Your task to perform on an android device: change alarm snooze length Image 0: 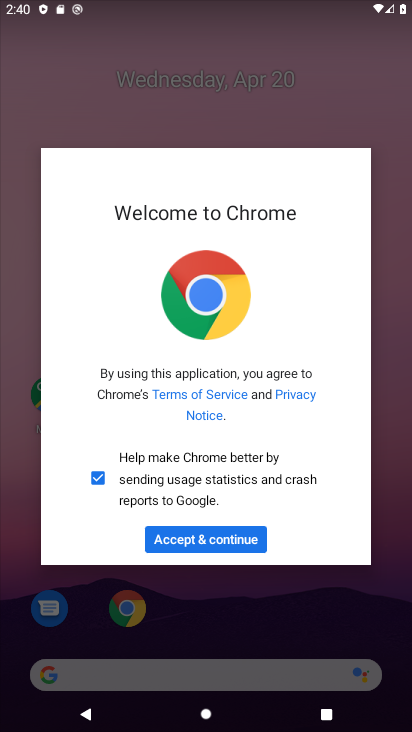
Step 0: press home button
Your task to perform on an android device: change alarm snooze length Image 1: 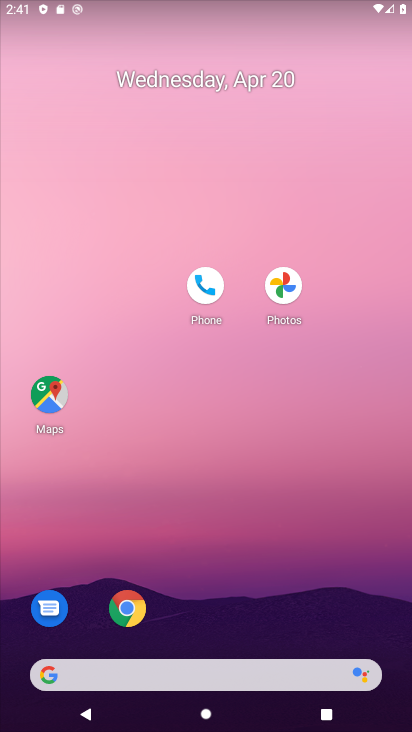
Step 1: drag from (184, 620) to (249, 166)
Your task to perform on an android device: change alarm snooze length Image 2: 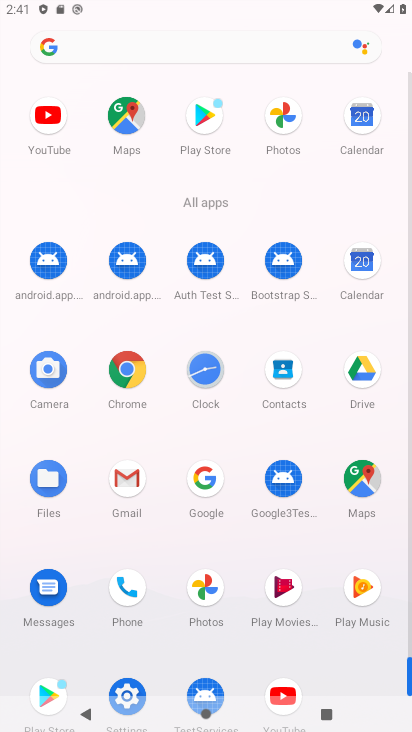
Step 2: click (213, 367)
Your task to perform on an android device: change alarm snooze length Image 3: 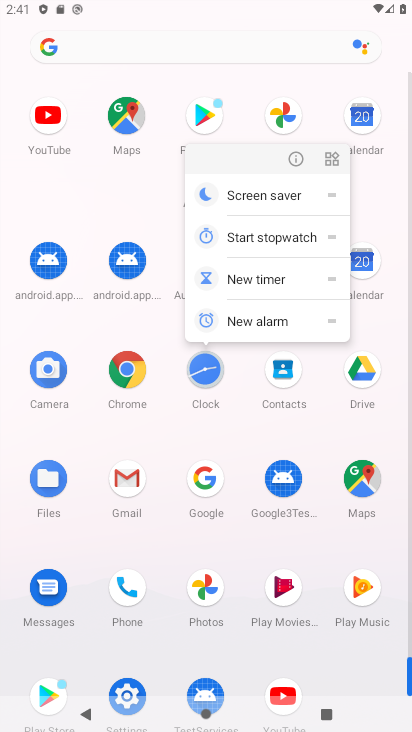
Step 3: click (197, 374)
Your task to perform on an android device: change alarm snooze length Image 4: 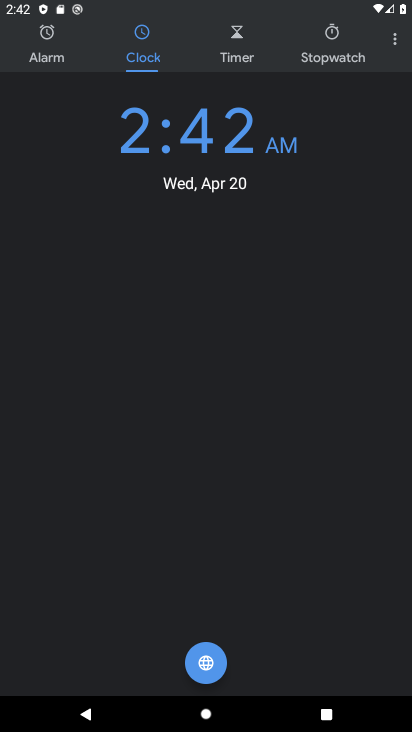
Step 4: click (396, 40)
Your task to perform on an android device: change alarm snooze length Image 5: 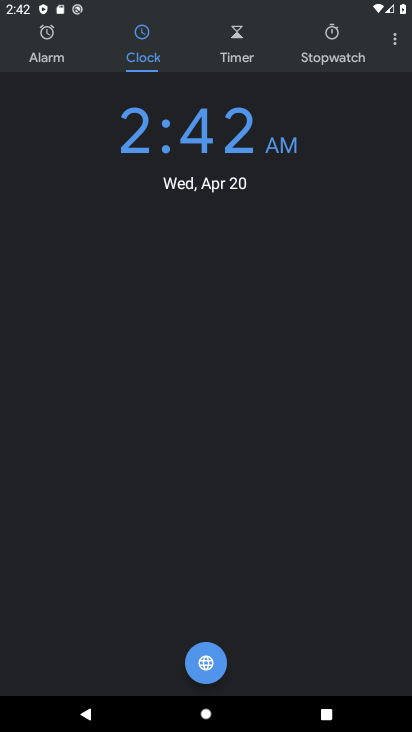
Step 5: click (390, 39)
Your task to perform on an android device: change alarm snooze length Image 6: 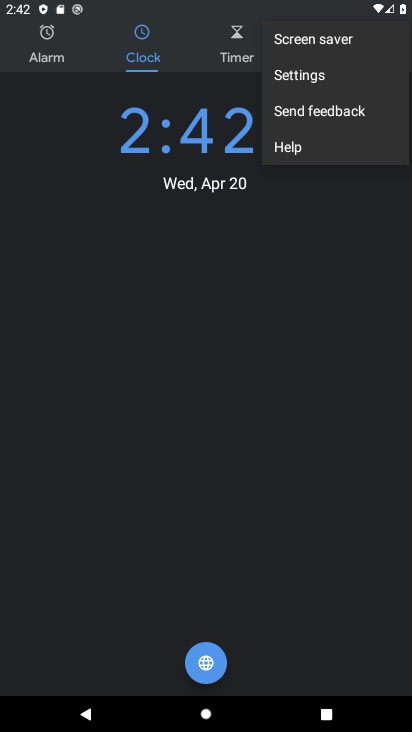
Step 6: click (323, 80)
Your task to perform on an android device: change alarm snooze length Image 7: 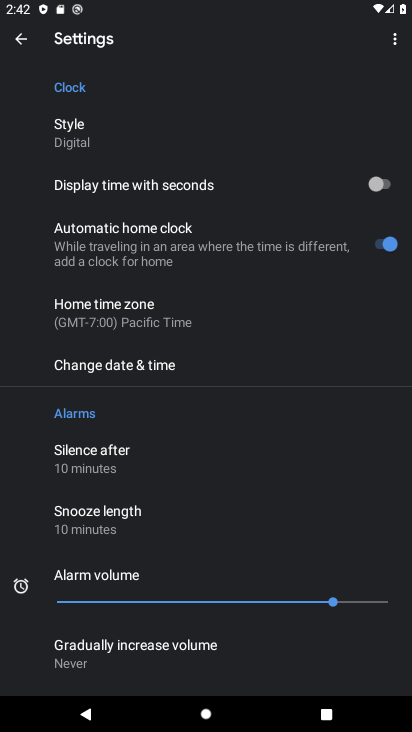
Step 7: drag from (184, 624) to (191, 455)
Your task to perform on an android device: change alarm snooze length Image 8: 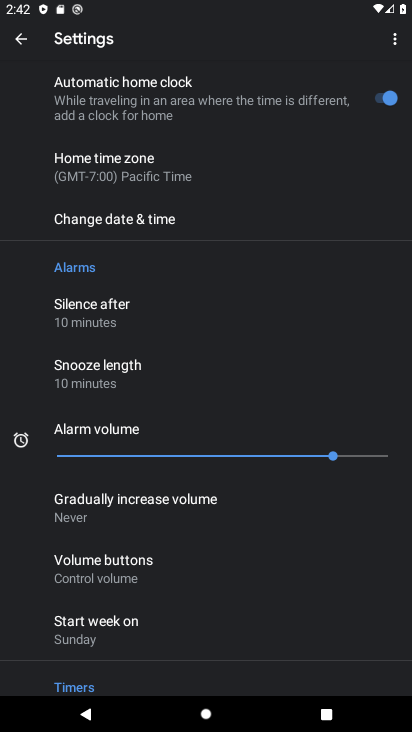
Step 8: click (127, 374)
Your task to perform on an android device: change alarm snooze length Image 9: 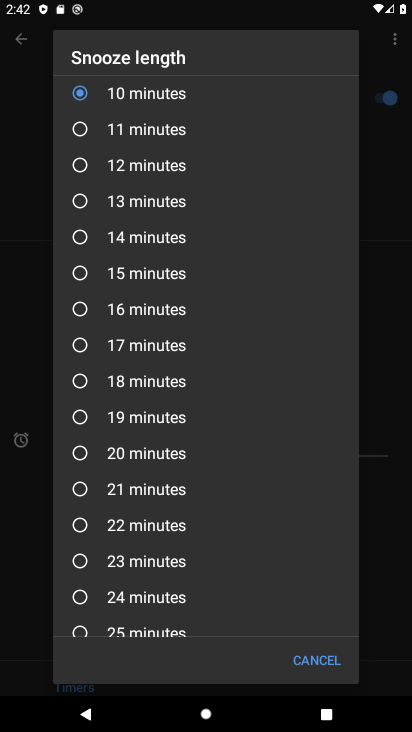
Step 9: click (80, 137)
Your task to perform on an android device: change alarm snooze length Image 10: 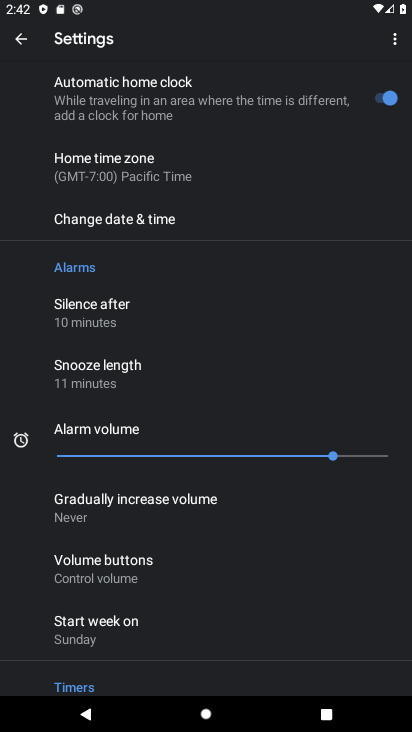
Step 10: task complete